Your task to perform on an android device: Show me the alarms in the clock app Image 0: 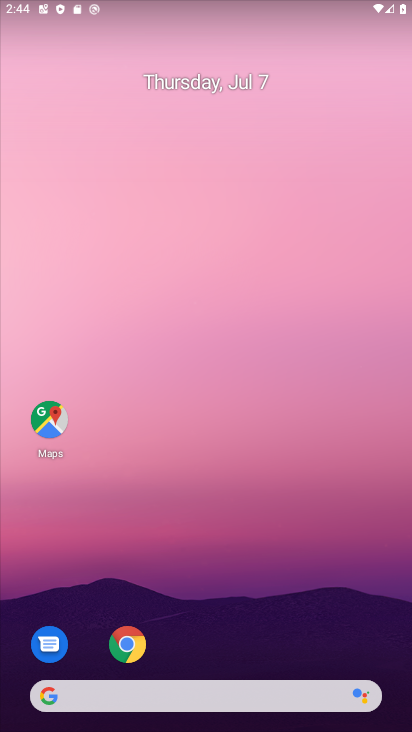
Step 0: press home button
Your task to perform on an android device: Show me the alarms in the clock app Image 1: 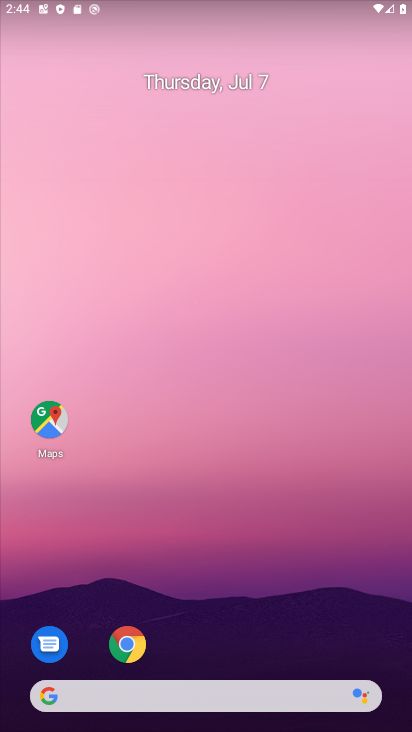
Step 1: drag from (264, 650) to (223, 191)
Your task to perform on an android device: Show me the alarms in the clock app Image 2: 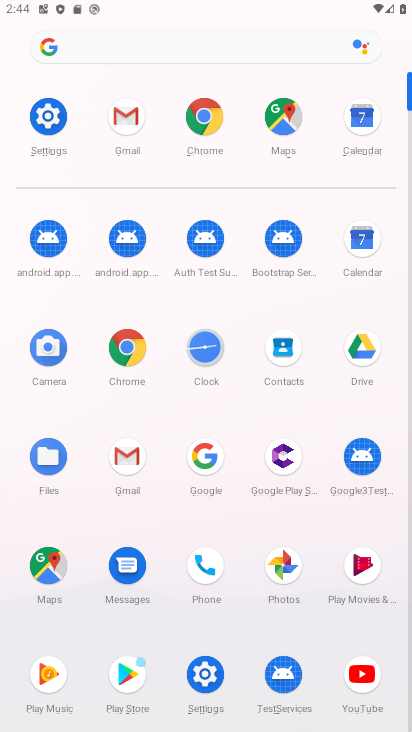
Step 2: click (199, 355)
Your task to perform on an android device: Show me the alarms in the clock app Image 3: 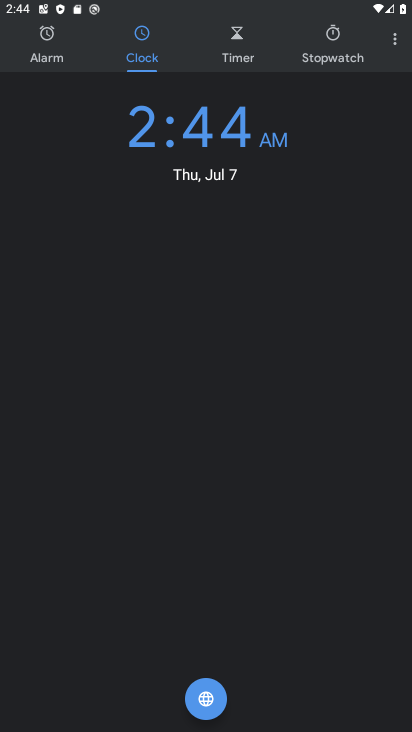
Step 3: click (48, 43)
Your task to perform on an android device: Show me the alarms in the clock app Image 4: 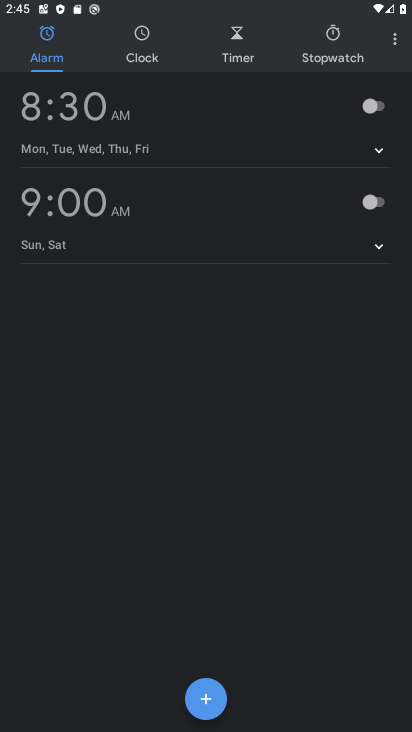
Step 4: task complete